Your task to perform on an android device: find which apps use the phone's location Image 0: 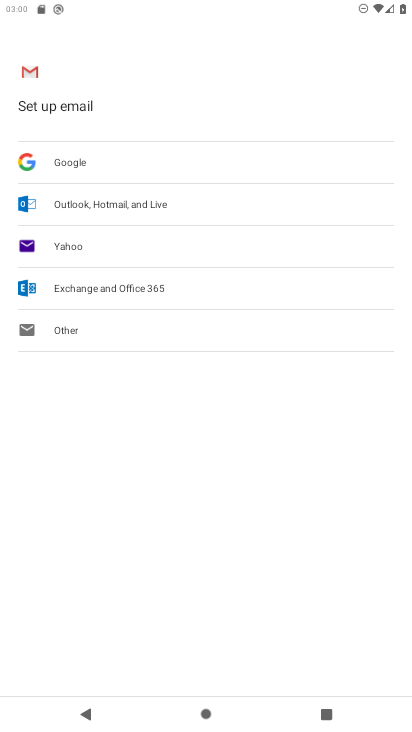
Step 0: press home button
Your task to perform on an android device: find which apps use the phone's location Image 1: 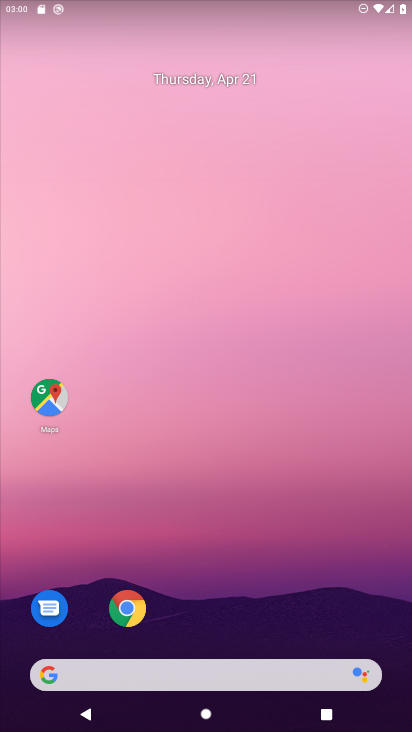
Step 1: drag from (220, 528) to (289, 162)
Your task to perform on an android device: find which apps use the phone's location Image 2: 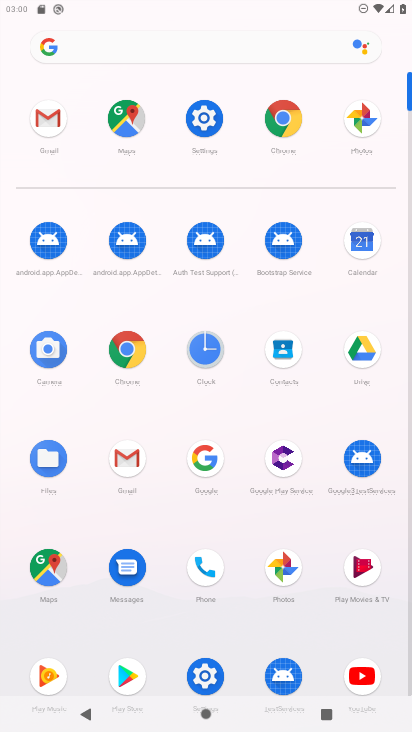
Step 2: click (206, 122)
Your task to perform on an android device: find which apps use the phone's location Image 3: 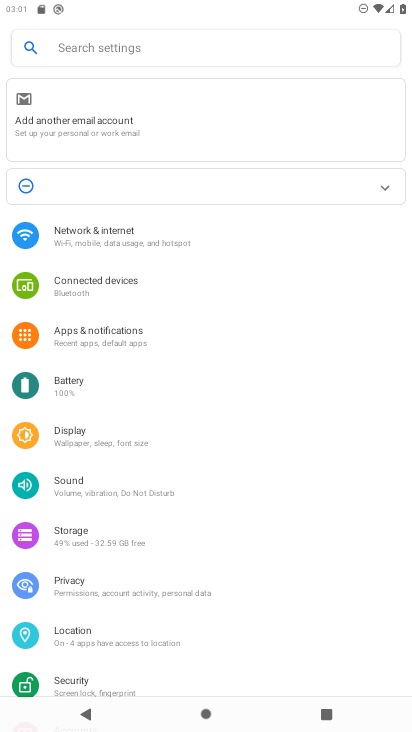
Step 3: click (85, 633)
Your task to perform on an android device: find which apps use the phone's location Image 4: 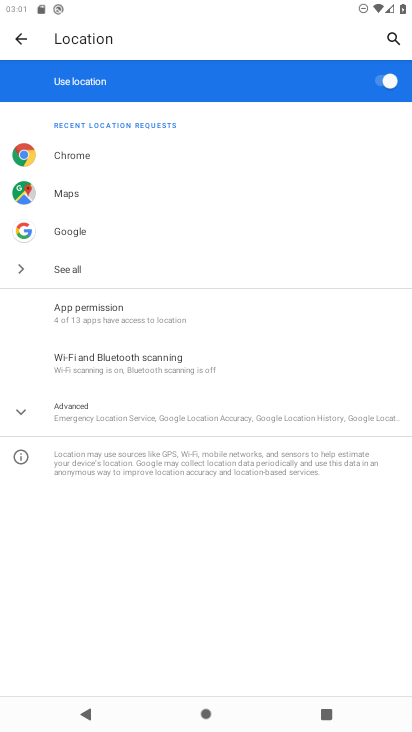
Step 4: click (131, 308)
Your task to perform on an android device: find which apps use the phone's location Image 5: 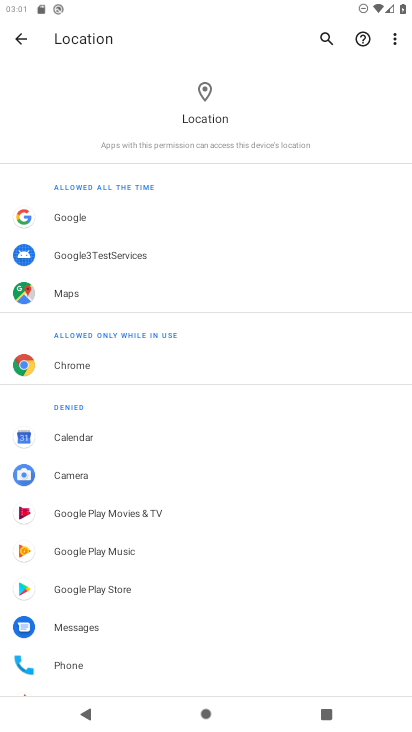
Step 5: drag from (171, 635) to (195, 286)
Your task to perform on an android device: find which apps use the phone's location Image 6: 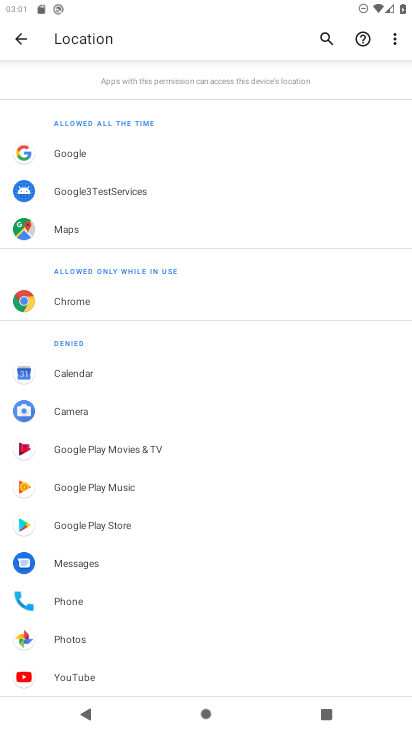
Step 6: drag from (158, 151) to (153, 529)
Your task to perform on an android device: find which apps use the phone's location Image 7: 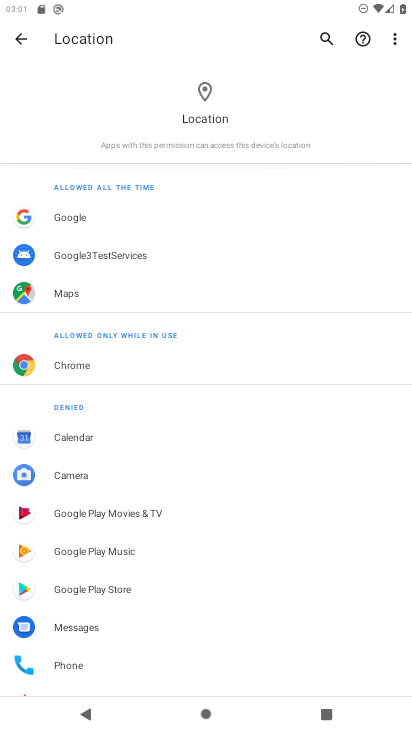
Step 7: drag from (158, 657) to (230, 64)
Your task to perform on an android device: find which apps use the phone's location Image 8: 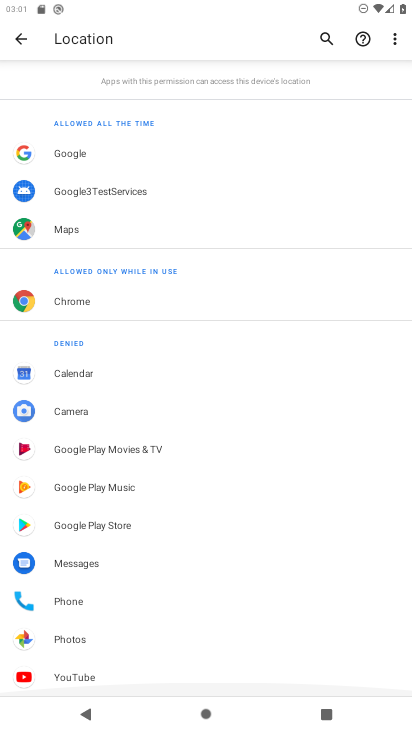
Step 8: click (11, 40)
Your task to perform on an android device: find which apps use the phone's location Image 9: 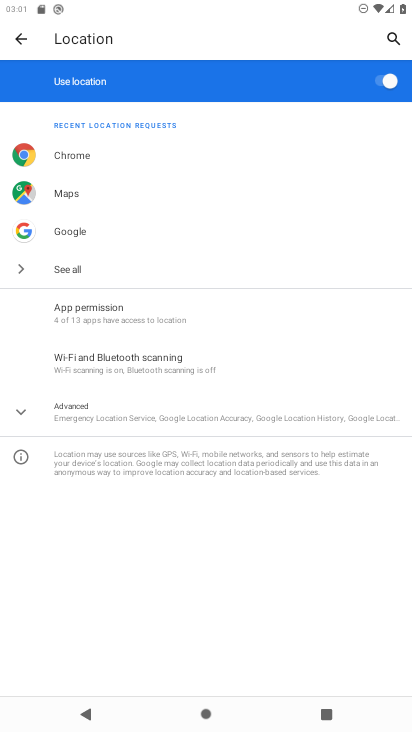
Step 9: task complete